Your task to perform on an android device: allow notifications from all sites in the chrome app Image 0: 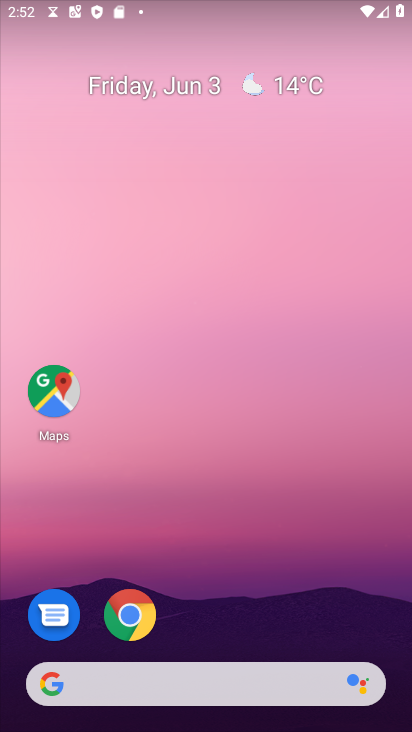
Step 0: click (139, 615)
Your task to perform on an android device: allow notifications from all sites in the chrome app Image 1: 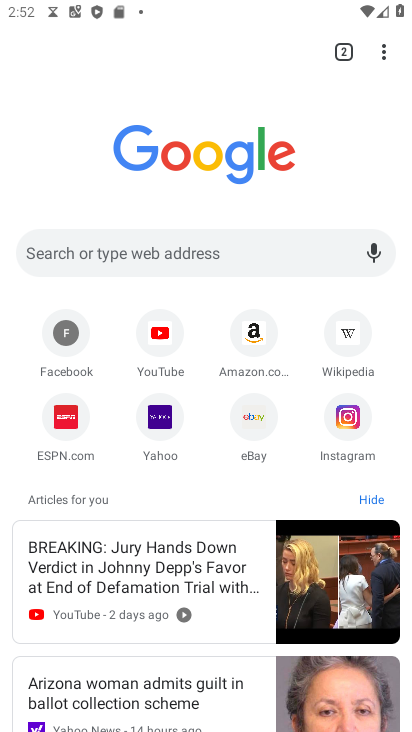
Step 1: drag from (382, 54) to (221, 439)
Your task to perform on an android device: allow notifications from all sites in the chrome app Image 2: 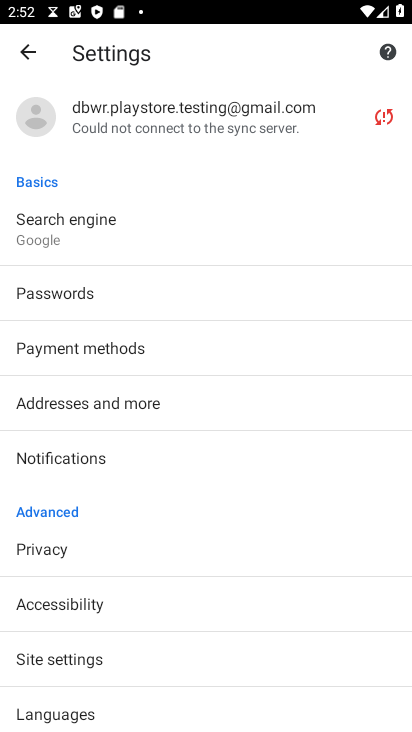
Step 2: click (61, 657)
Your task to perform on an android device: allow notifications from all sites in the chrome app Image 3: 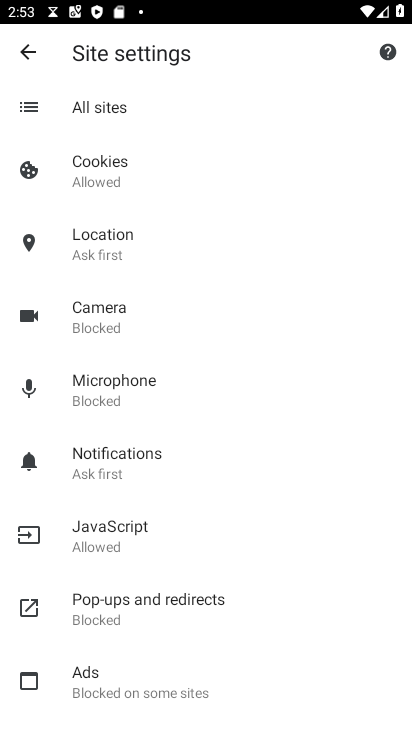
Step 3: click (100, 453)
Your task to perform on an android device: allow notifications from all sites in the chrome app Image 4: 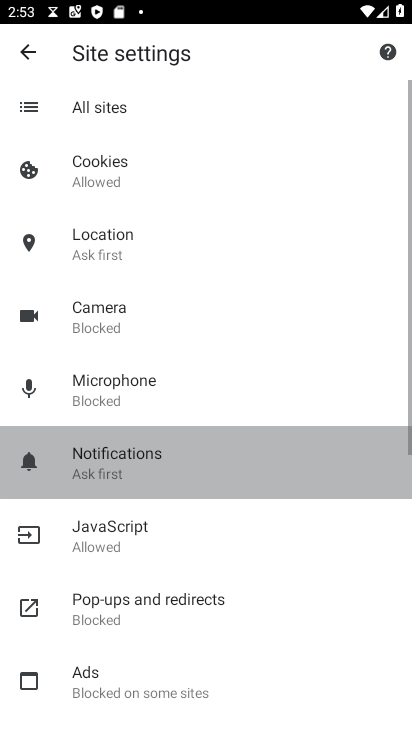
Step 4: click (168, 473)
Your task to perform on an android device: allow notifications from all sites in the chrome app Image 5: 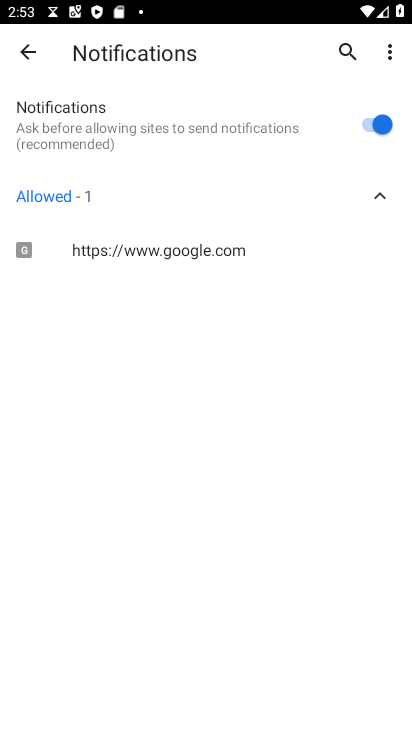
Step 5: task complete